Your task to perform on an android device: turn notification dots off Image 0: 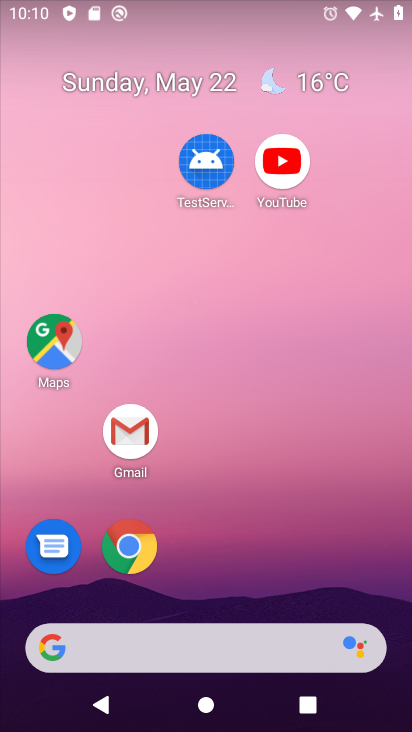
Step 0: drag from (264, 698) to (309, 236)
Your task to perform on an android device: turn notification dots off Image 1: 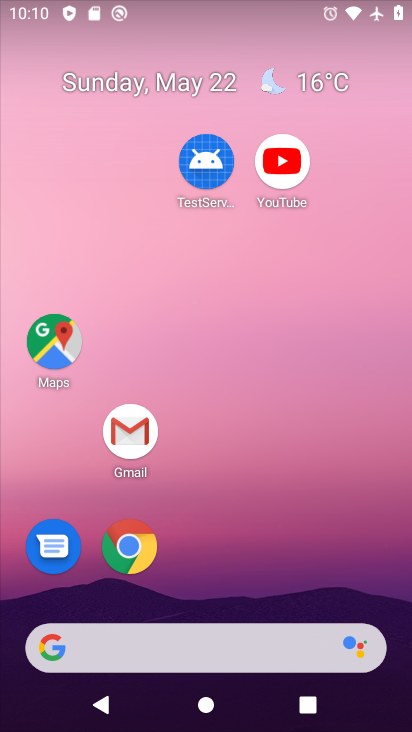
Step 1: drag from (259, 648) to (266, 299)
Your task to perform on an android device: turn notification dots off Image 2: 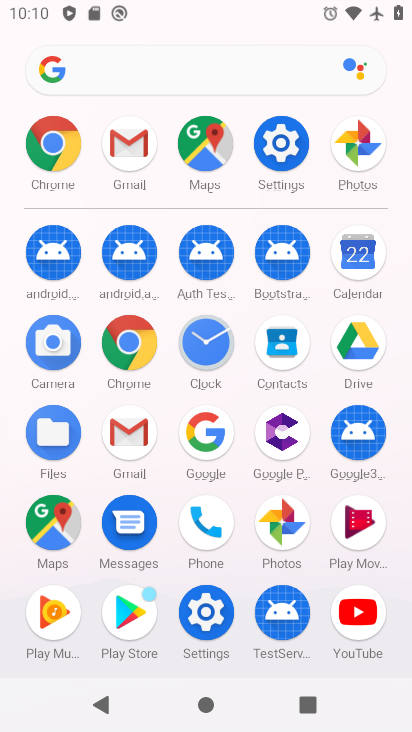
Step 2: click (273, 131)
Your task to perform on an android device: turn notification dots off Image 3: 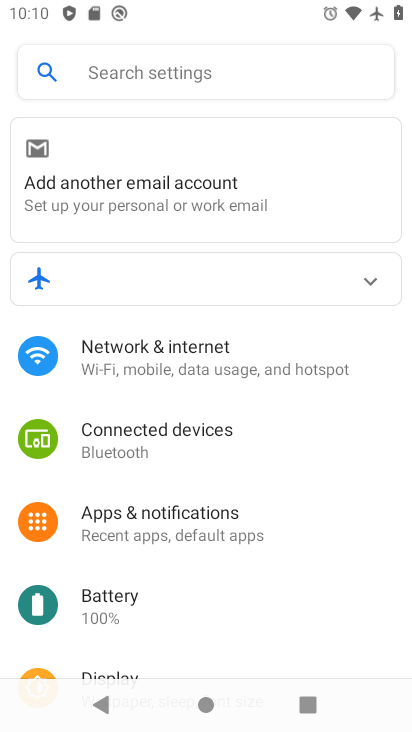
Step 3: drag from (198, 574) to (205, 181)
Your task to perform on an android device: turn notification dots off Image 4: 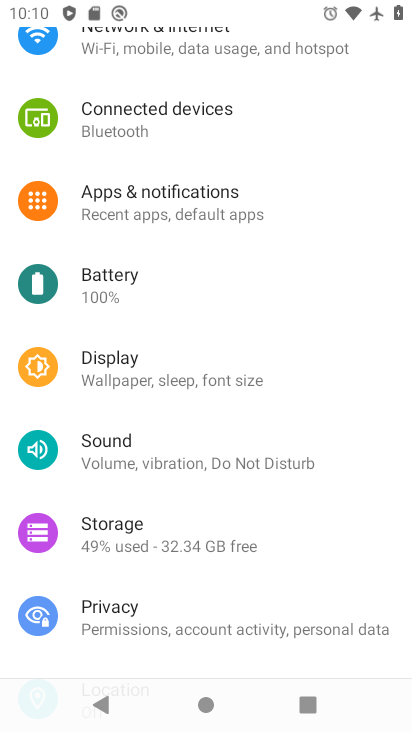
Step 4: drag from (166, 454) to (200, 120)
Your task to perform on an android device: turn notification dots off Image 5: 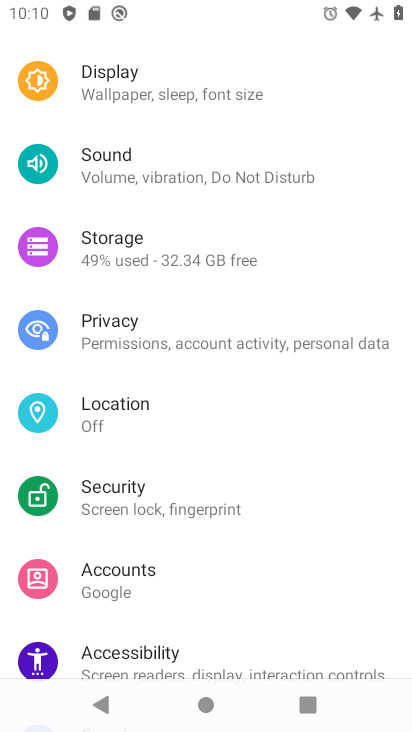
Step 5: drag from (144, 214) to (187, 487)
Your task to perform on an android device: turn notification dots off Image 6: 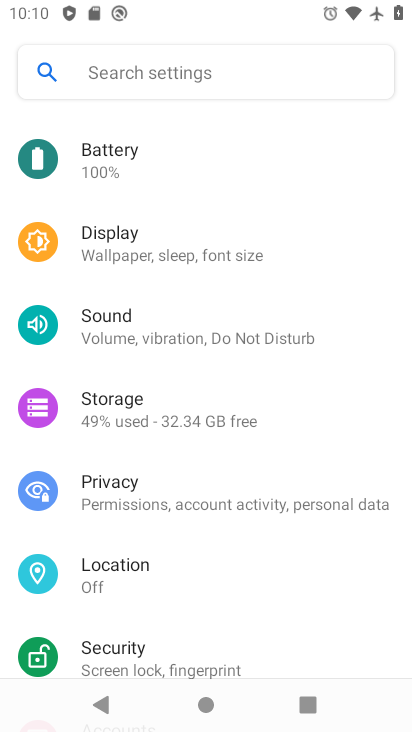
Step 6: drag from (154, 247) to (176, 478)
Your task to perform on an android device: turn notification dots off Image 7: 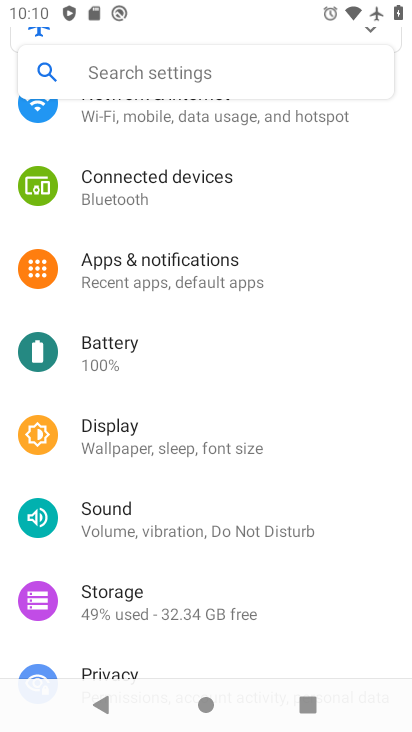
Step 7: click (151, 266)
Your task to perform on an android device: turn notification dots off Image 8: 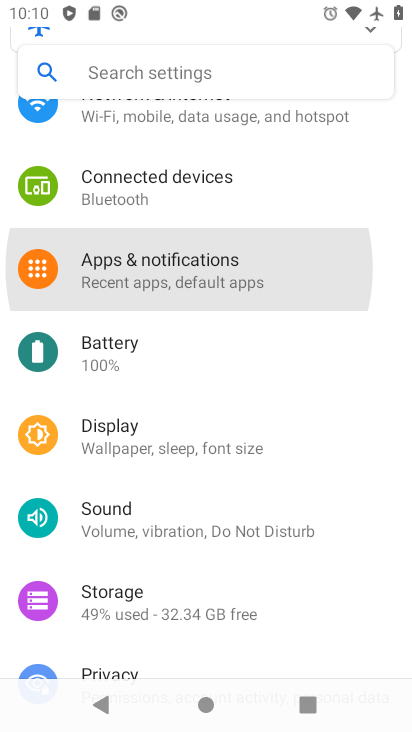
Step 8: click (152, 273)
Your task to perform on an android device: turn notification dots off Image 9: 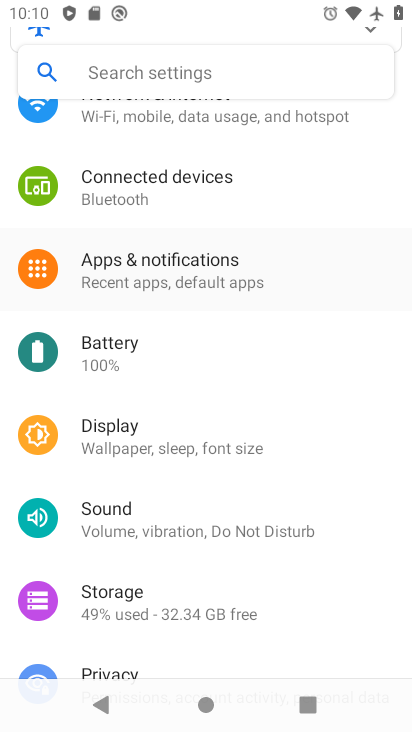
Step 9: click (153, 274)
Your task to perform on an android device: turn notification dots off Image 10: 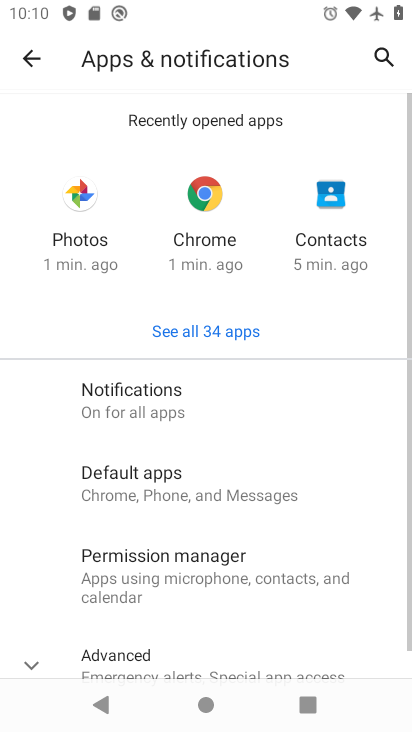
Step 10: click (115, 402)
Your task to perform on an android device: turn notification dots off Image 11: 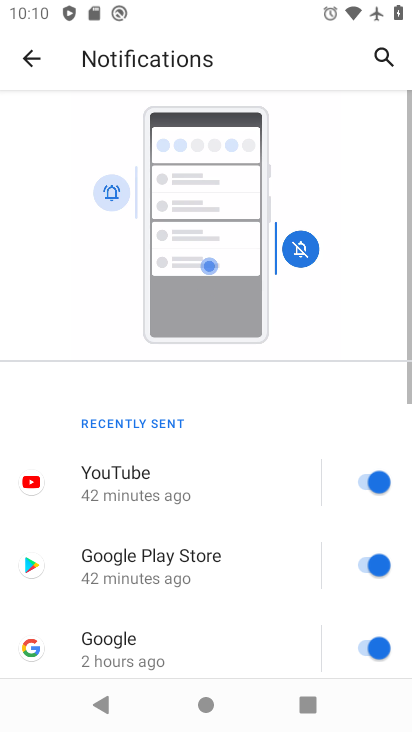
Step 11: drag from (204, 597) to (179, 321)
Your task to perform on an android device: turn notification dots off Image 12: 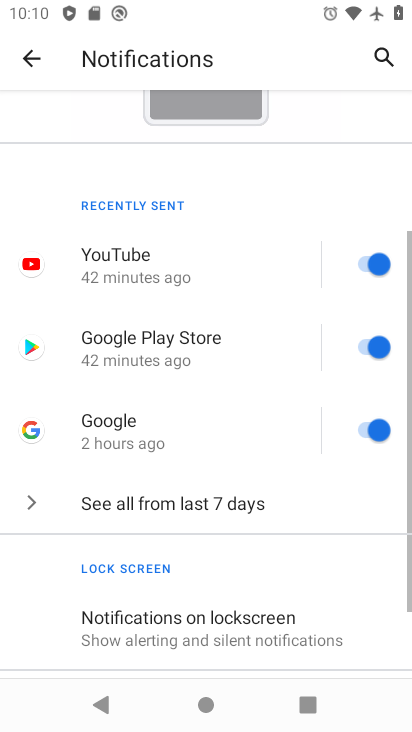
Step 12: drag from (240, 588) to (213, 256)
Your task to perform on an android device: turn notification dots off Image 13: 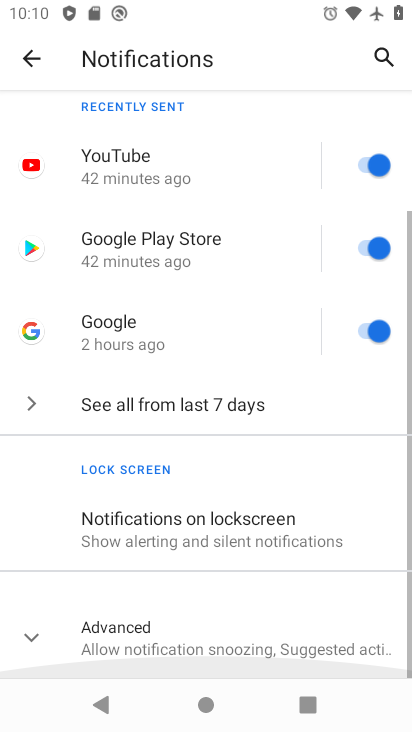
Step 13: drag from (202, 449) to (201, 120)
Your task to perform on an android device: turn notification dots off Image 14: 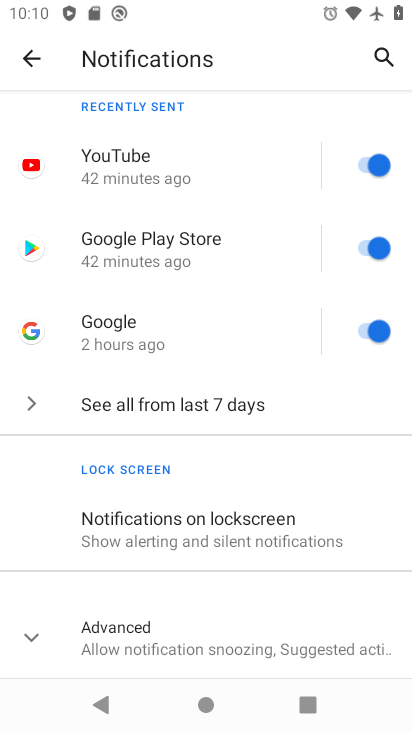
Step 14: click (163, 538)
Your task to perform on an android device: turn notification dots off Image 15: 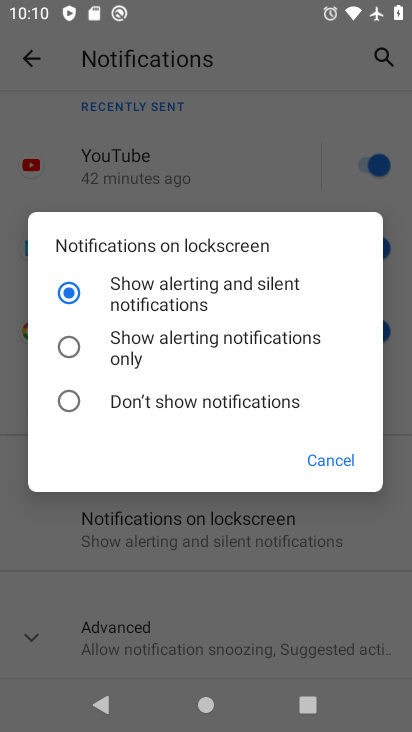
Step 15: click (315, 455)
Your task to perform on an android device: turn notification dots off Image 16: 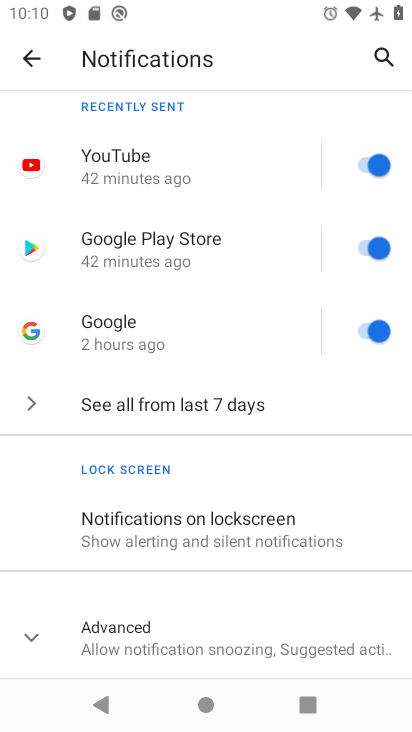
Step 16: click (124, 513)
Your task to perform on an android device: turn notification dots off Image 17: 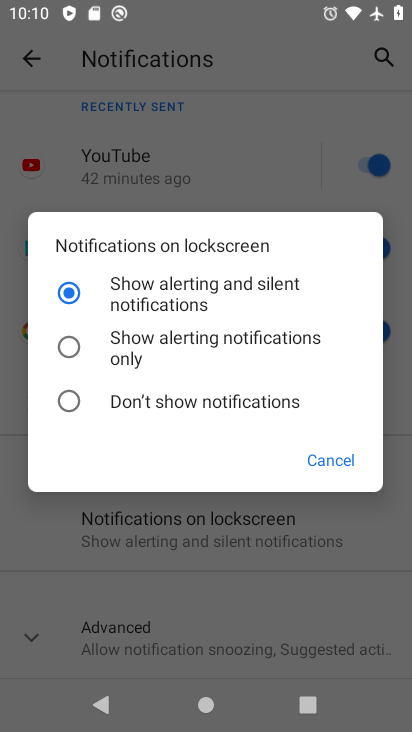
Step 17: click (318, 461)
Your task to perform on an android device: turn notification dots off Image 18: 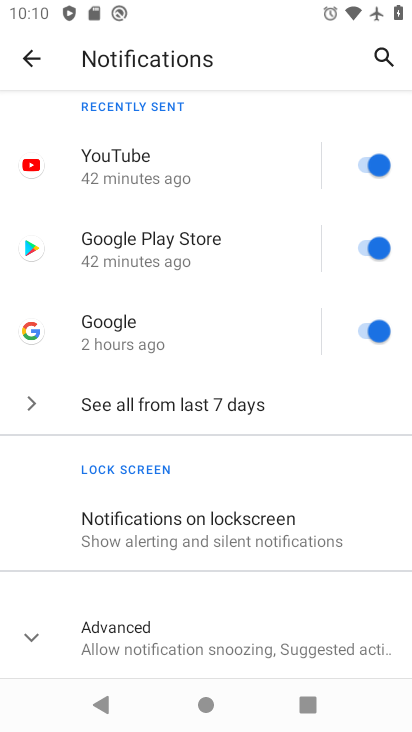
Step 18: click (179, 529)
Your task to perform on an android device: turn notification dots off Image 19: 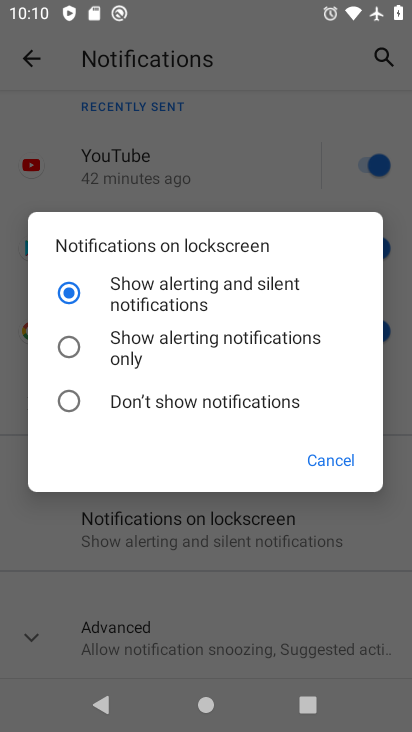
Step 19: click (304, 458)
Your task to perform on an android device: turn notification dots off Image 20: 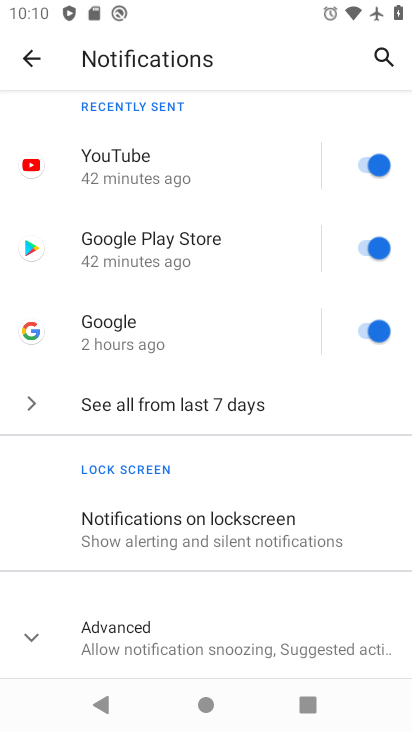
Step 20: drag from (154, 558) to (154, 306)
Your task to perform on an android device: turn notification dots off Image 21: 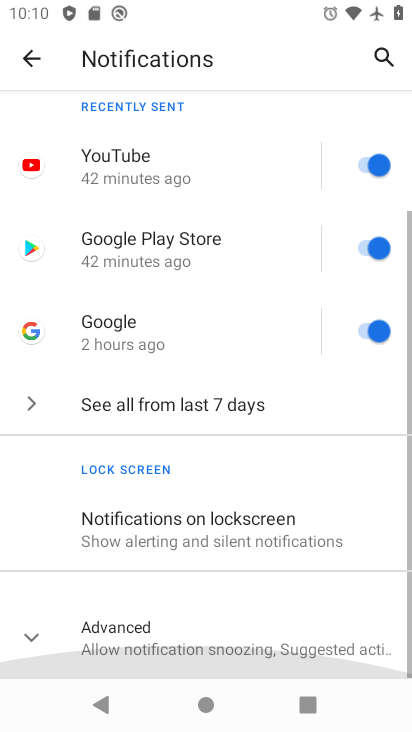
Step 21: drag from (152, 477) to (152, 90)
Your task to perform on an android device: turn notification dots off Image 22: 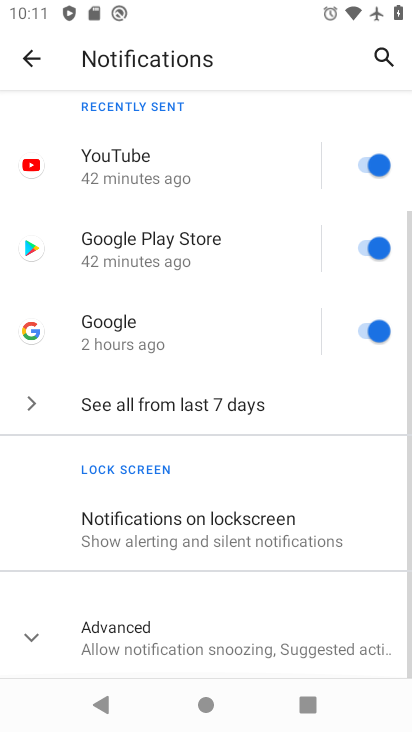
Step 22: click (128, 650)
Your task to perform on an android device: turn notification dots off Image 23: 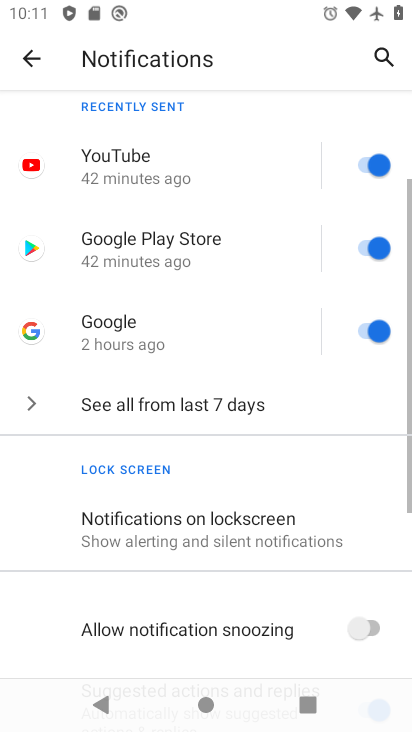
Step 23: drag from (159, 516) to (187, 279)
Your task to perform on an android device: turn notification dots off Image 24: 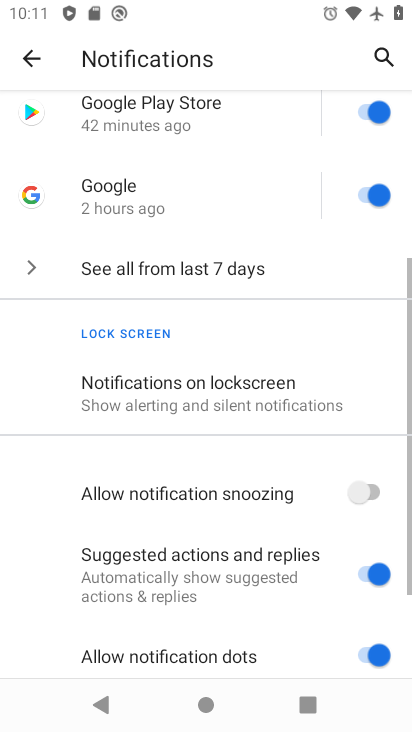
Step 24: drag from (192, 481) to (192, 138)
Your task to perform on an android device: turn notification dots off Image 25: 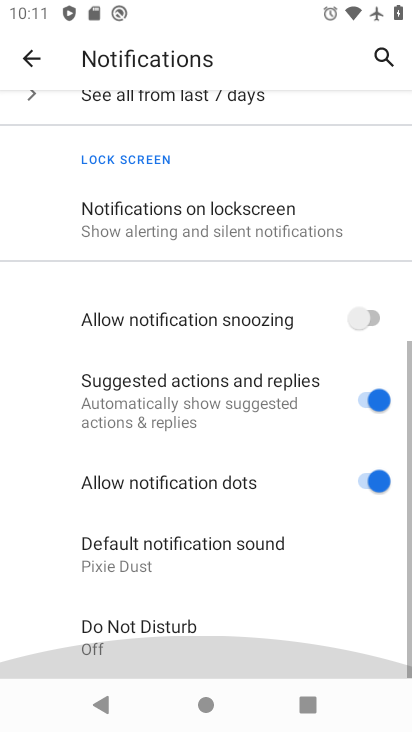
Step 25: drag from (192, 489) to (192, 146)
Your task to perform on an android device: turn notification dots off Image 26: 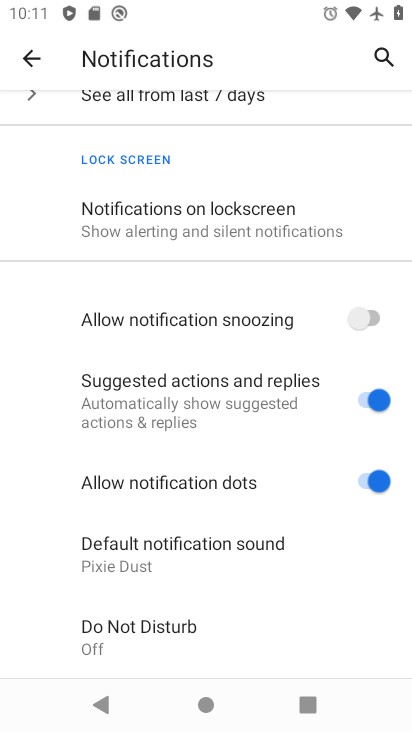
Step 26: click (359, 489)
Your task to perform on an android device: turn notification dots off Image 27: 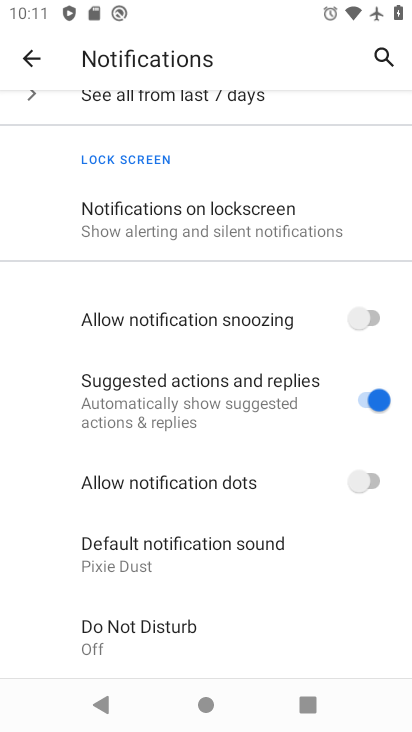
Step 27: task complete